Your task to perform on an android device: turn on bluetooth scan Image 0: 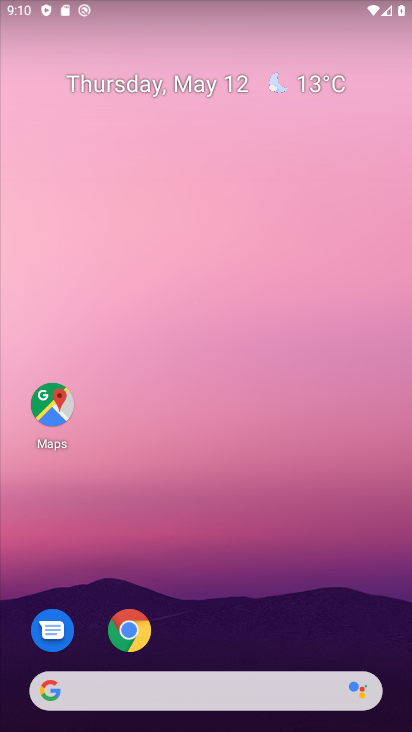
Step 0: drag from (190, 695) to (274, 256)
Your task to perform on an android device: turn on bluetooth scan Image 1: 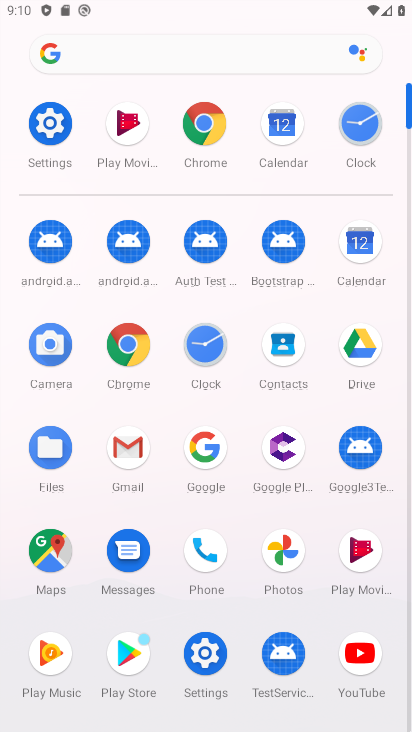
Step 1: click (54, 125)
Your task to perform on an android device: turn on bluetooth scan Image 2: 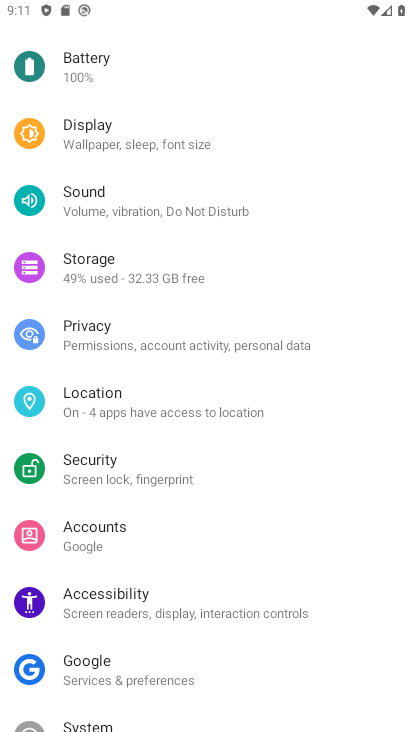
Step 2: click (102, 391)
Your task to perform on an android device: turn on bluetooth scan Image 3: 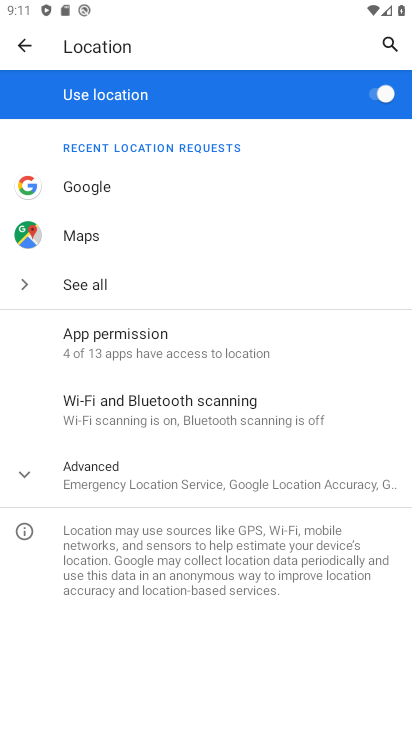
Step 3: click (185, 411)
Your task to perform on an android device: turn on bluetooth scan Image 4: 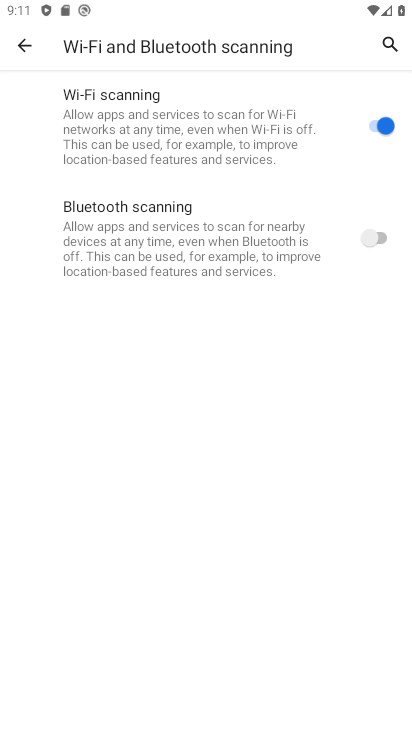
Step 4: click (372, 254)
Your task to perform on an android device: turn on bluetooth scan Image 5: 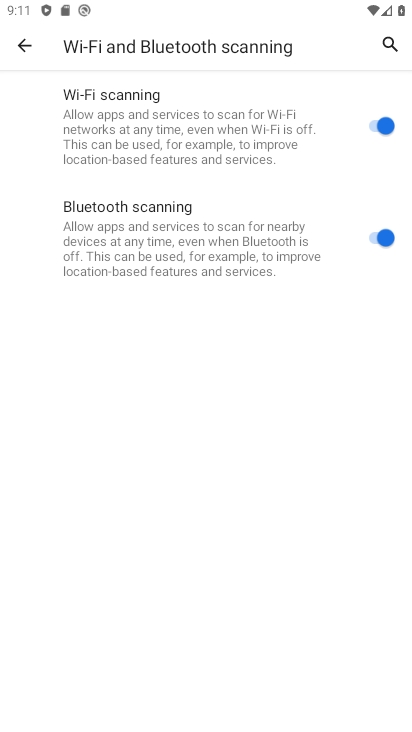
Step 5: task complete